Your task to perform on an android device: turn pop-ups on in chrome Image 0: 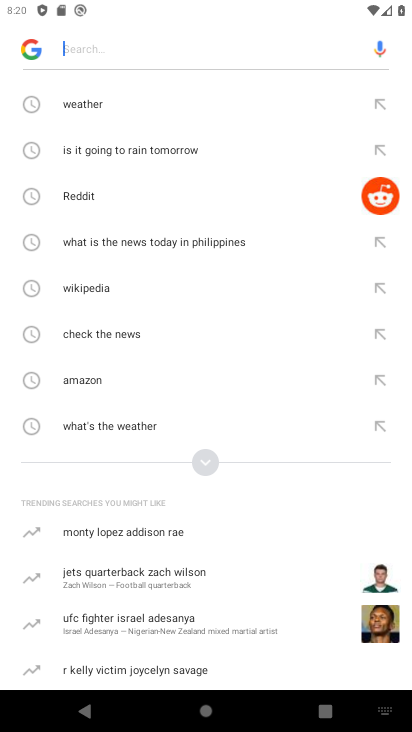
Step 0: press back button
Your task to perform on an android device: turn pop-ups on in chrome Image 1: 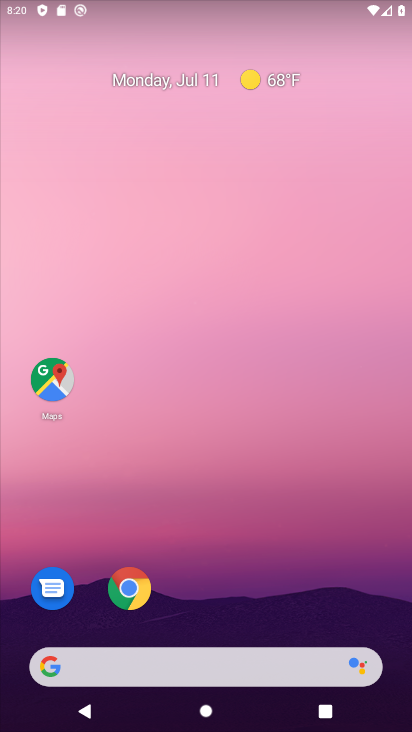
Step 1: drag from (202, 642) to (155, 84)
Your task to perform on an android device: turn pop-ups on in chrome Image 2: 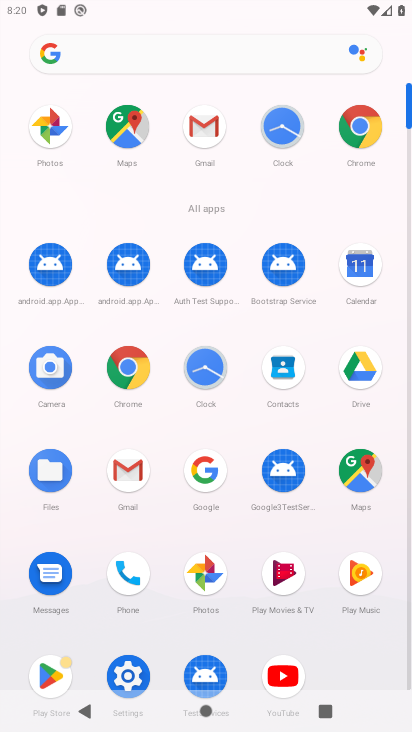
Step 2: click (366, 131)
Your task to perform on an android device: turn pop-ups on in chrome Image 3: 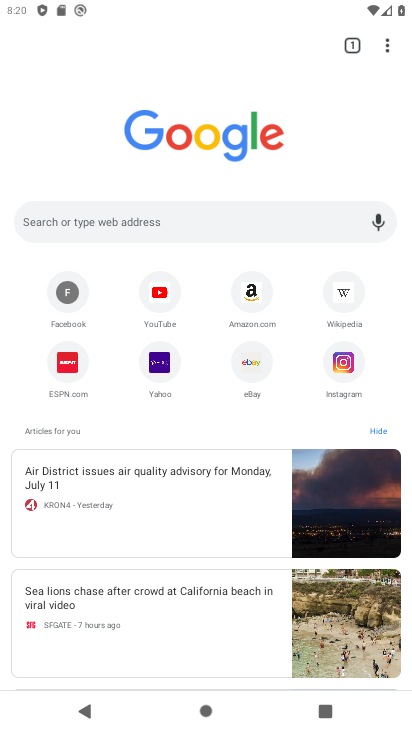
Step 3: drag from (388, 41) to (225, 366)
Your task to perform on an android device: turn pop-ups on in chrome Image 4: 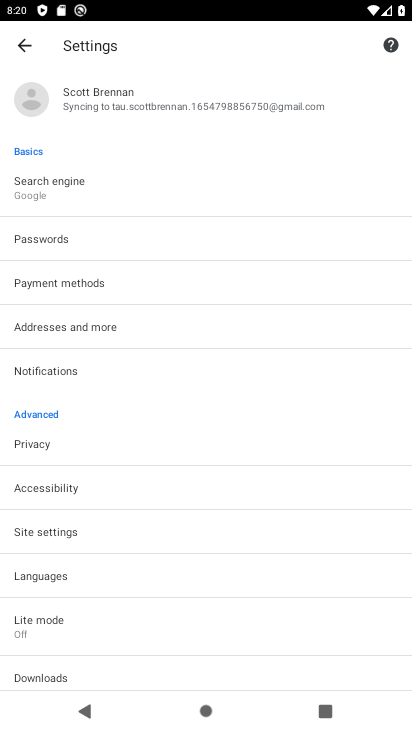
Step 4: click (46, 540)
Your task to perform on an android device: turn pop-ups on in chrome Image 5: 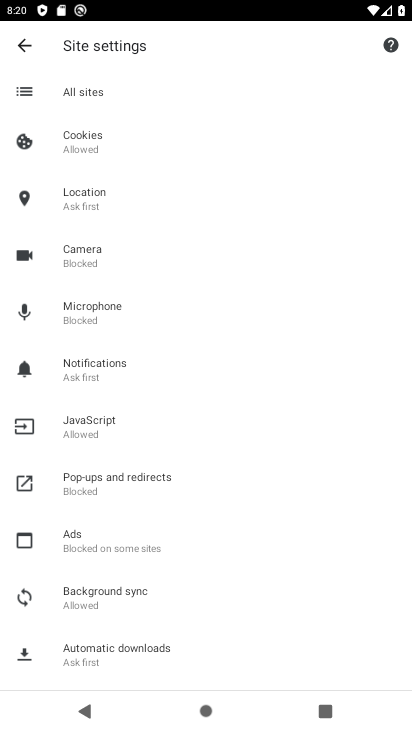
Step 5: click (86, 481)
Your task to perform on an android device: turn pop-ups on in chrome Image 6: 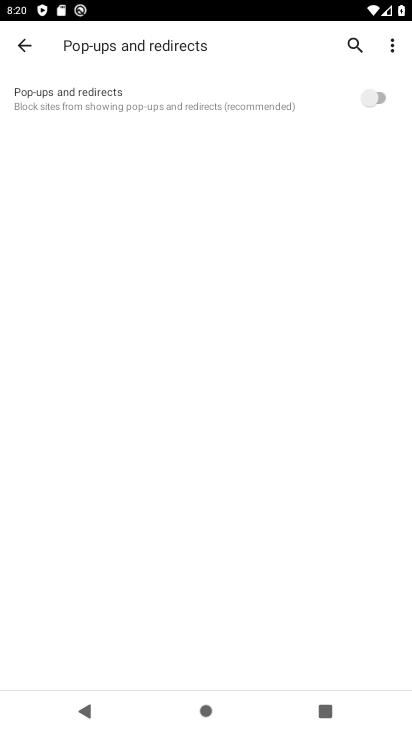
Step 6: click (377, 101)
Your task to perform on an android device: turn pop-ups on in chrome Image 7: 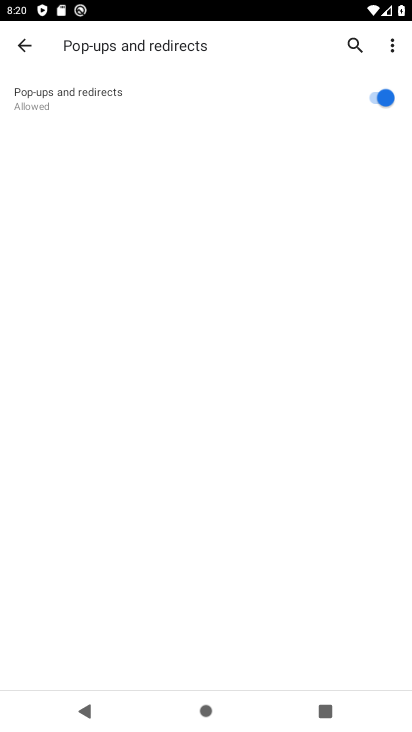
Step 7: task complete